Your task to perform on an android device: allow cookies in the chrome app Image 0: 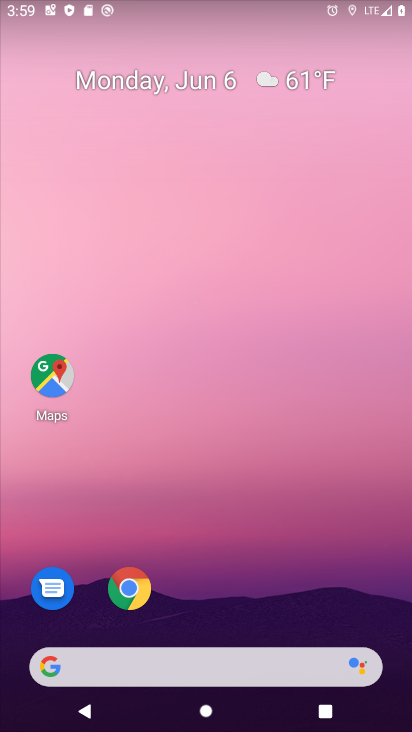
Step 0: drag from (217, 625) to (170, 79)
Your task to perform on an android device: allow cookies in the chrome app Image 1: 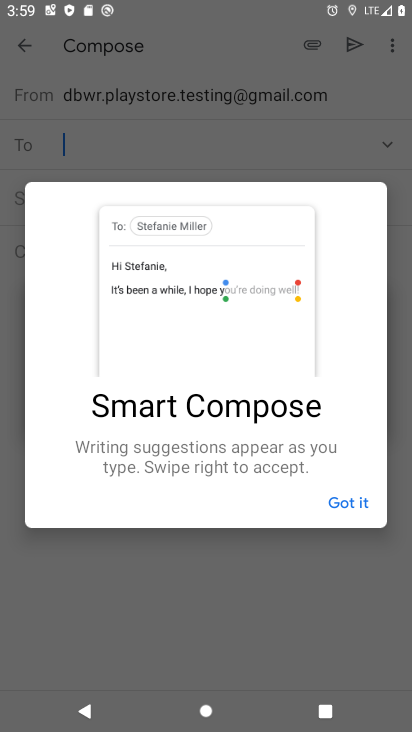
Step 1: press home button
Your task to perform on an android device: allow cookies in the chrome app Image 2: 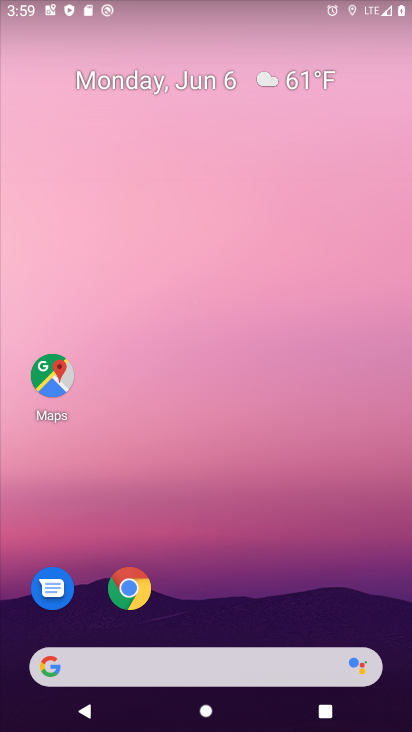
Step 2: click (138, 599)
Your task to perform on an android device: allow cookies in the chrome app Image 3: 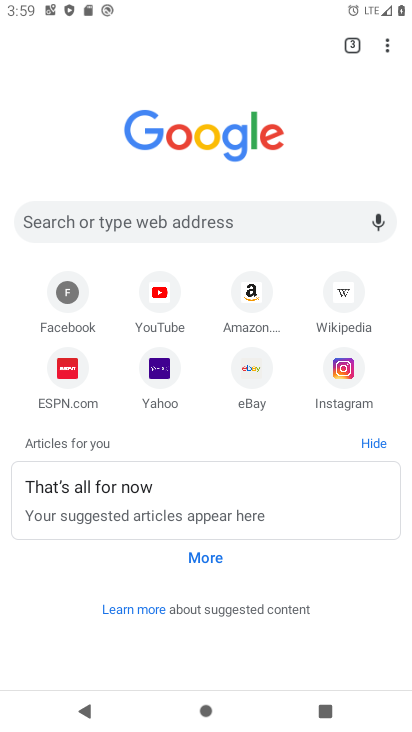
Step 3: click (394, 47)
Your task to perform on an android device: allow cookies in the chrome app Image 4: 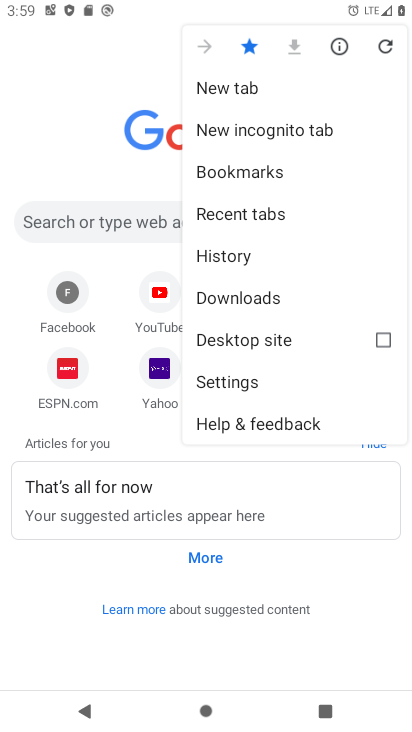
Step 4: click (266, 375)
Your task to perform on an android device: allow cookies in the chrome app Image 5: 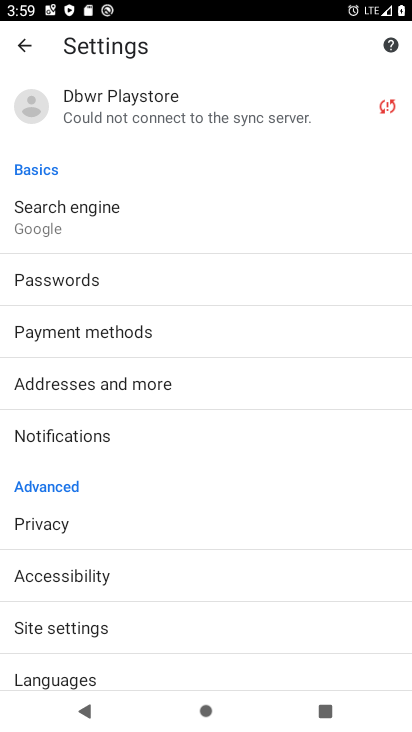
Step 5: click (159, 635)
Your task to perform on an android device: allow cookies in the chrome app Image 6: 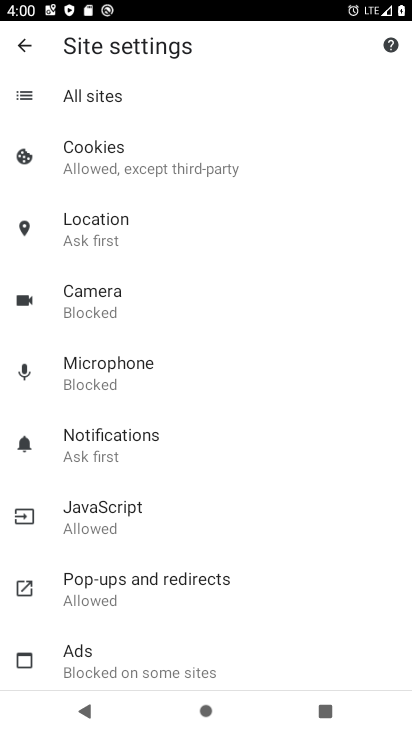
Step 6: click (194, 177)
Your task to perform on an android device: allow cookies in the chrome app Image 7: 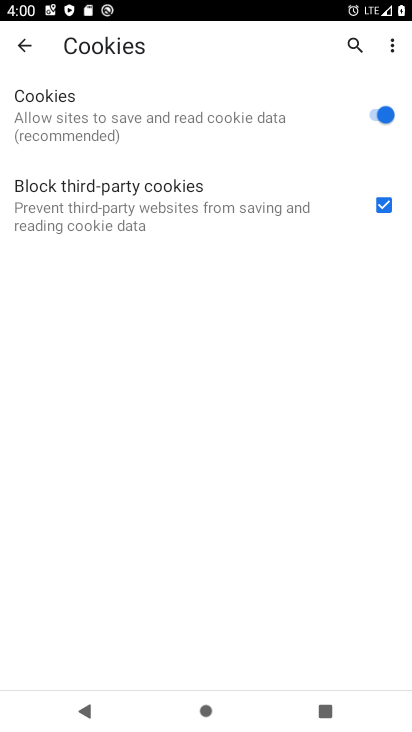
Step 7: task complete